Your task to perform on an android device: Open Youtube and go to the subscriptions tab Image 0: 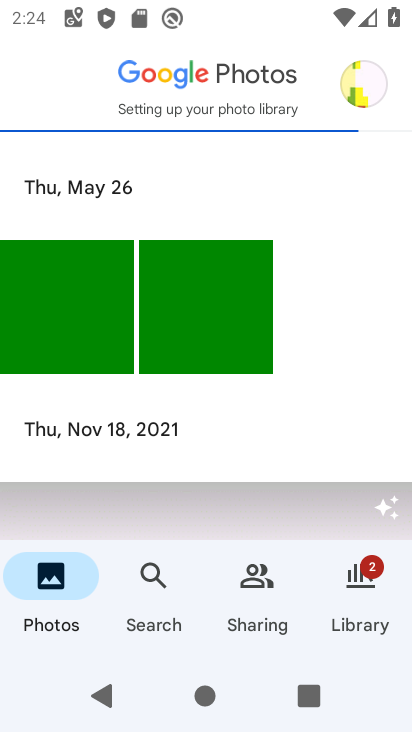
Step 0: press home button
Your task to perform on an android device: Open Youtube and go to the subscriptions tab Image 1: 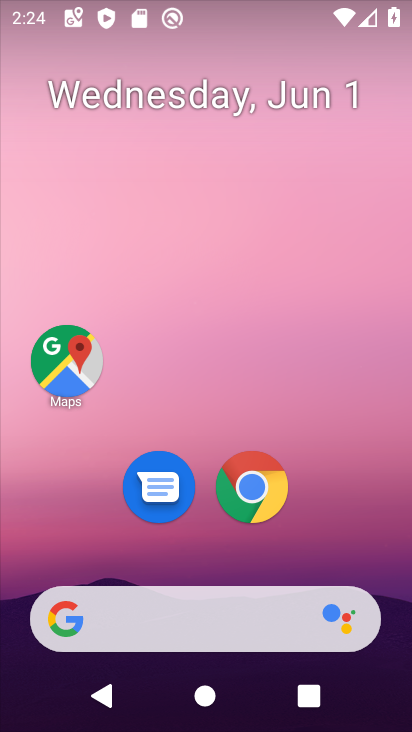
Step 1: drag from (352, 532) to (399, 148)
Your task to perform on an android device: Open Youtube and go to the subscriptions tab Image 2: 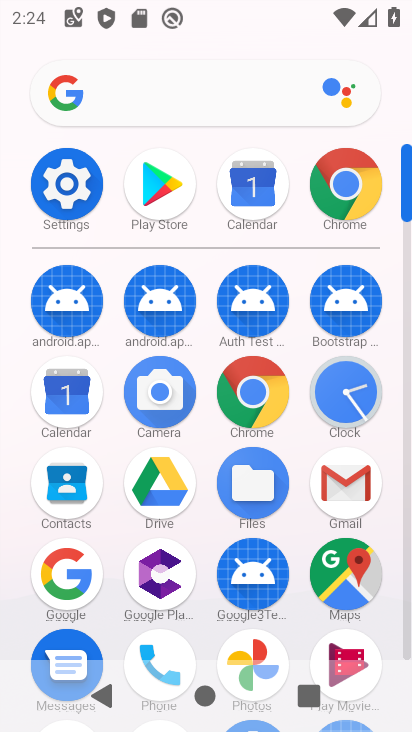
Step 2: drag from (292, 599) to (310, 303)
Your task to perform on an android device: Open Youtube and go to the subscriptions tab Image 3: 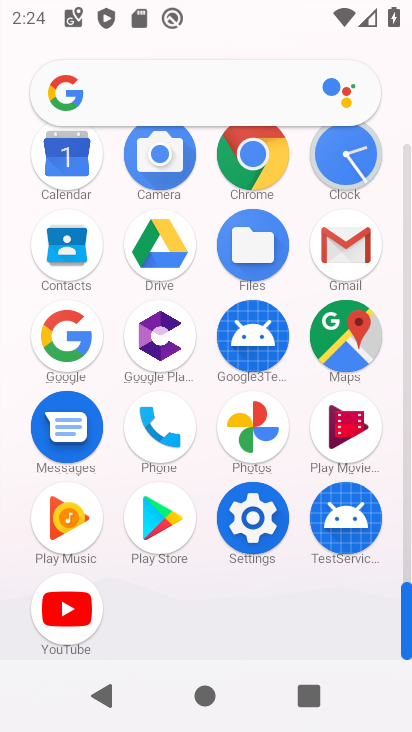
Step 3: click (88, 608)
Your task to perform on an android device: Open Youtube and go to the subscriptions tab Image 4: 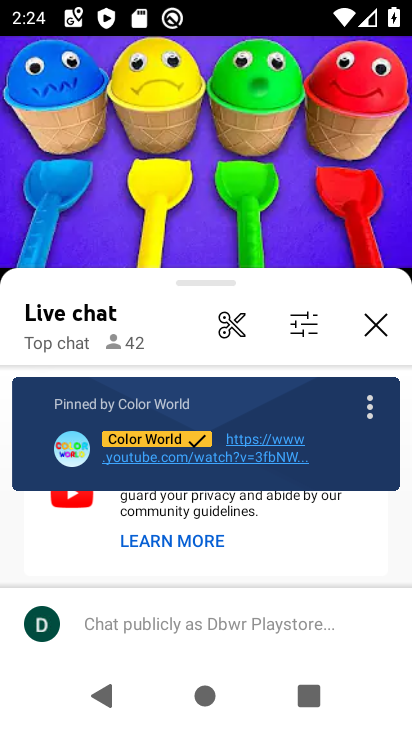
Step 4: press back button
Your task to perform on an android device: Open Youtube and go to the subscriptions tab Image 5: 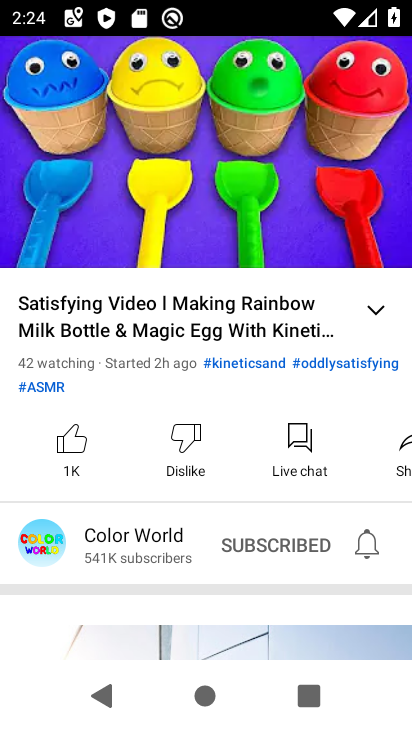
Step 5: press back button
Your task to perform on an android device: Open Youtube and go to the subscriptions tab Image 6: 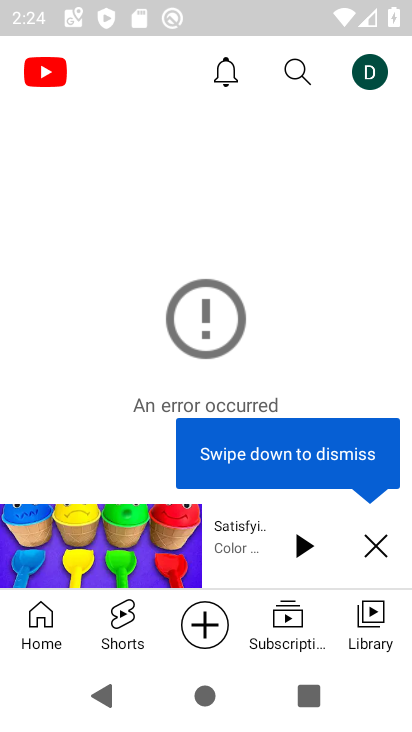
Step 6: click (291, 623)
Your task to perform on an android device: Open Youtube and go to the subscriptions tab Image 7: 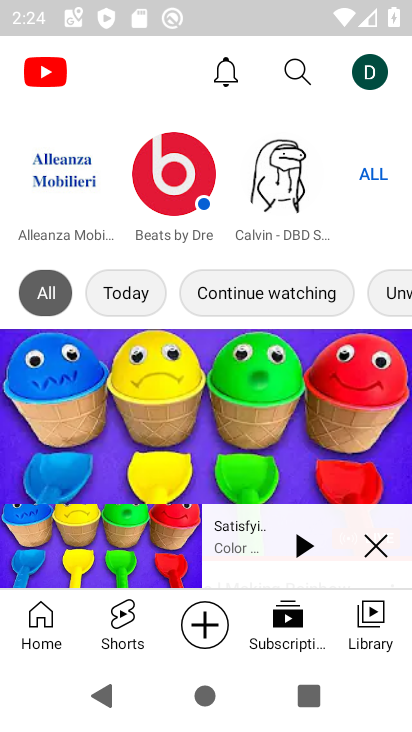
Step 7: task complete